Your task to perform on an android device: Open Youtube and go to "Your channel" Image 0: 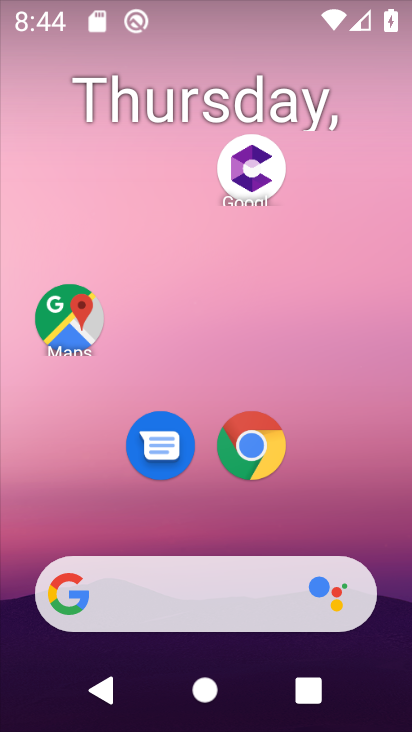
Step 0: drag from (202, 438) to (232, 101)
Your task to perform on an android device: Open Youtube and go to "Your channel" Image 1: 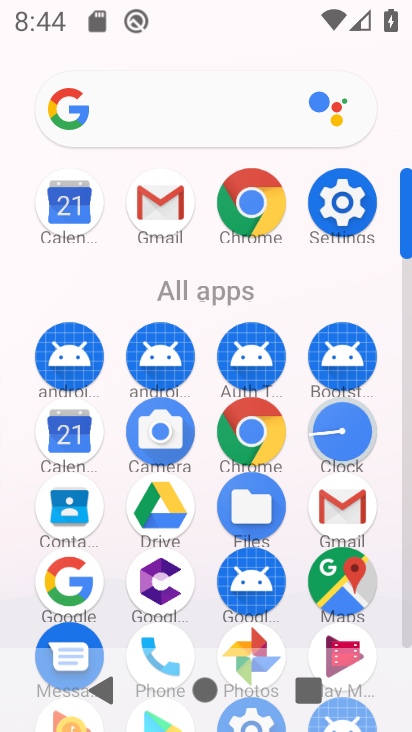
Step 1: drag from (409, 272) to (403, 665)
Your task to perform on an android device: Open Youtube and go to "Your channel" Image 2: 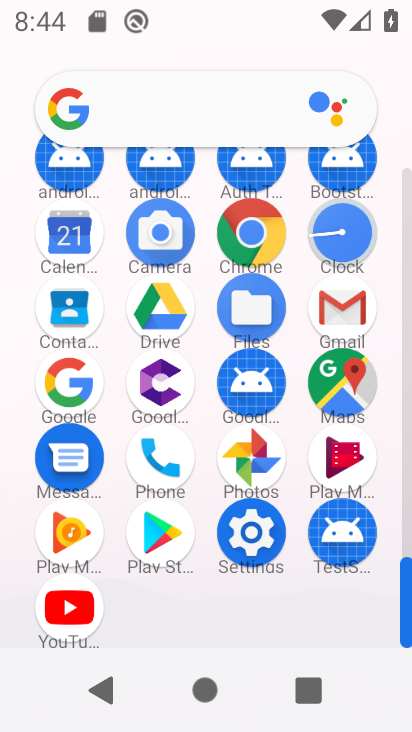
Step 2: click (59, 626)
Your task to perform on an android device: Open Youtube and go to "Your channel" Image 3: 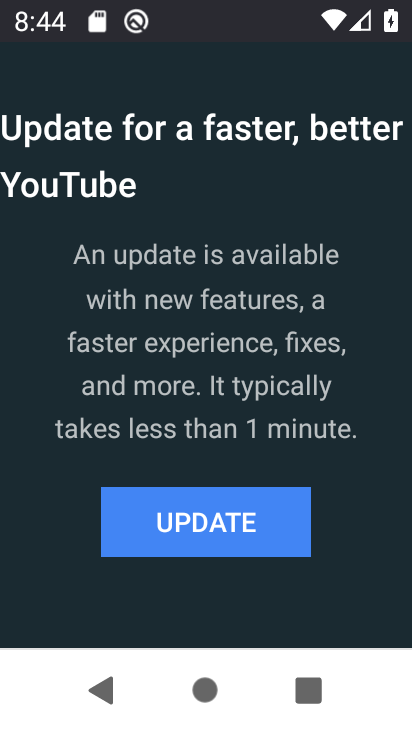
Step 3: click (181, 547)
Your task to perform on an android device: Open Youtube and go to "Your channel" Image 4: 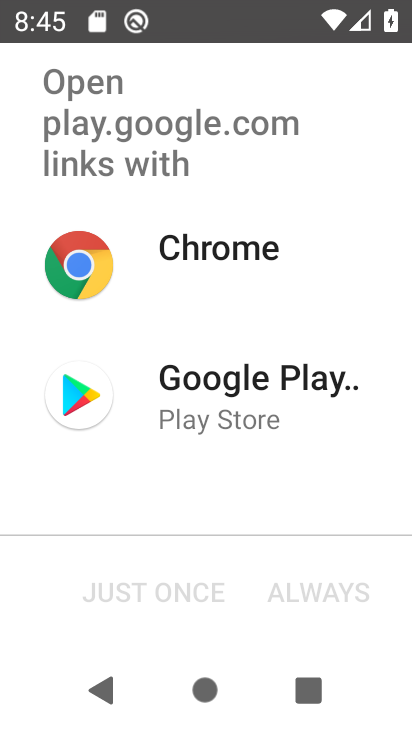
Step 4: click (203, 380)
Your task to perform on an android device: Open Youtube and go to "Your channel" Image 5: 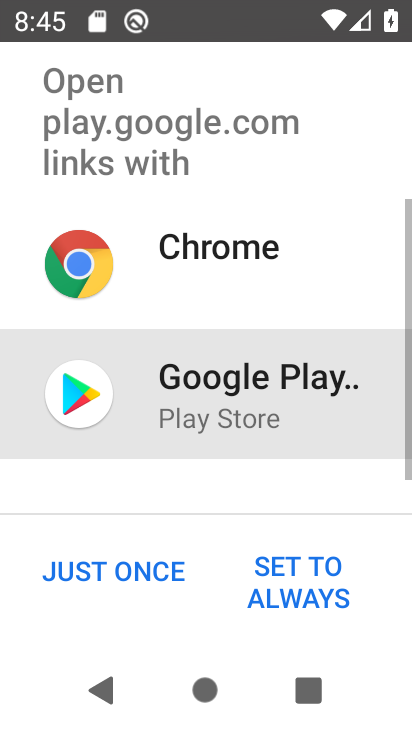
Step 5: click (163, 583)
Your task to perform on an android device: Open Youtube and go to "Your channel" Image 6: 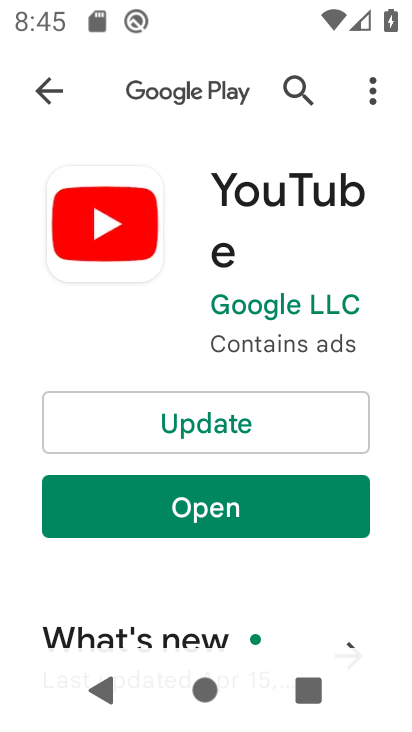
Step 6: click (207, 427)
Your task to perform on an android device: Open Youtube and go to "Your channel" Image 7: 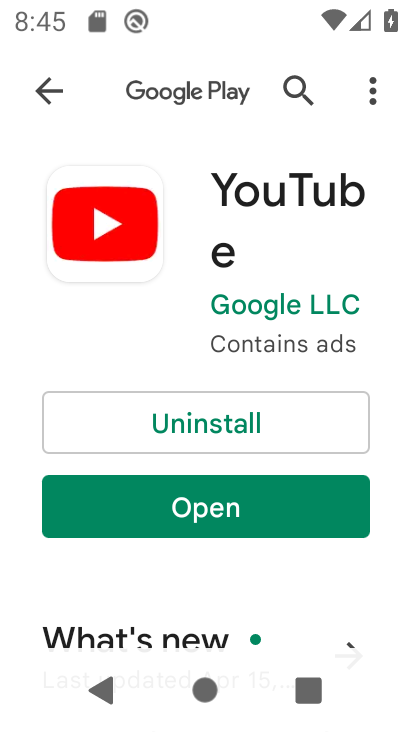
Step 7: click (195, 507)
Your task to perform on an android device: Open Youtube and go to "Your channel" Image 8: 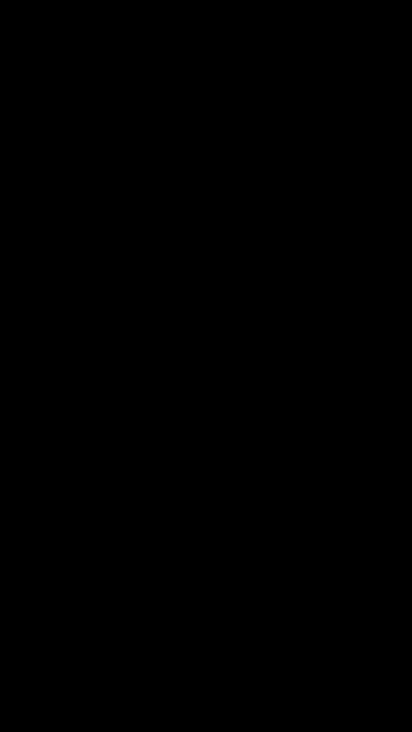
Step 8: click (368, 83)
Your task to perform on an android device: Open Youtube and go to "Your channel" Image 9: 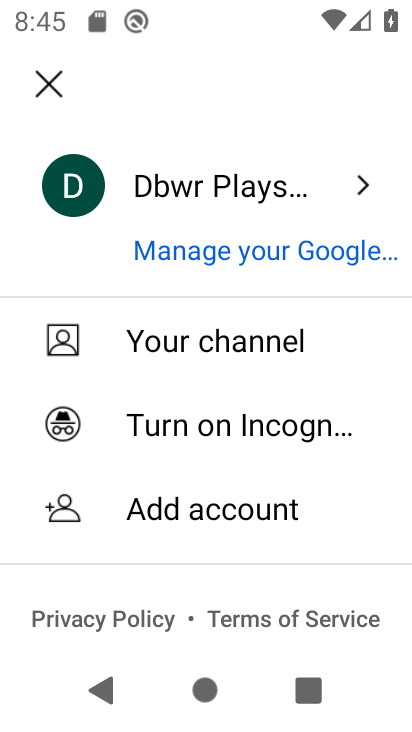
Step 9: click (278, 353)
Your task to perform on an android device: Open Youtube and go to "Your channel" Image 10: 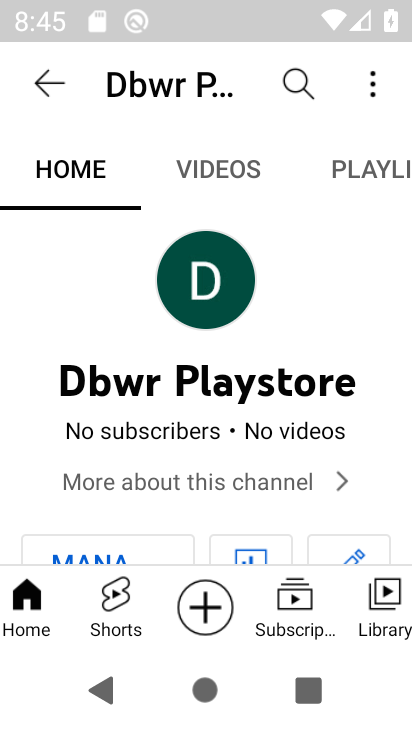
Step 10: task complete